Your task to perform on an android device: clear history in the chrome app Image 0: 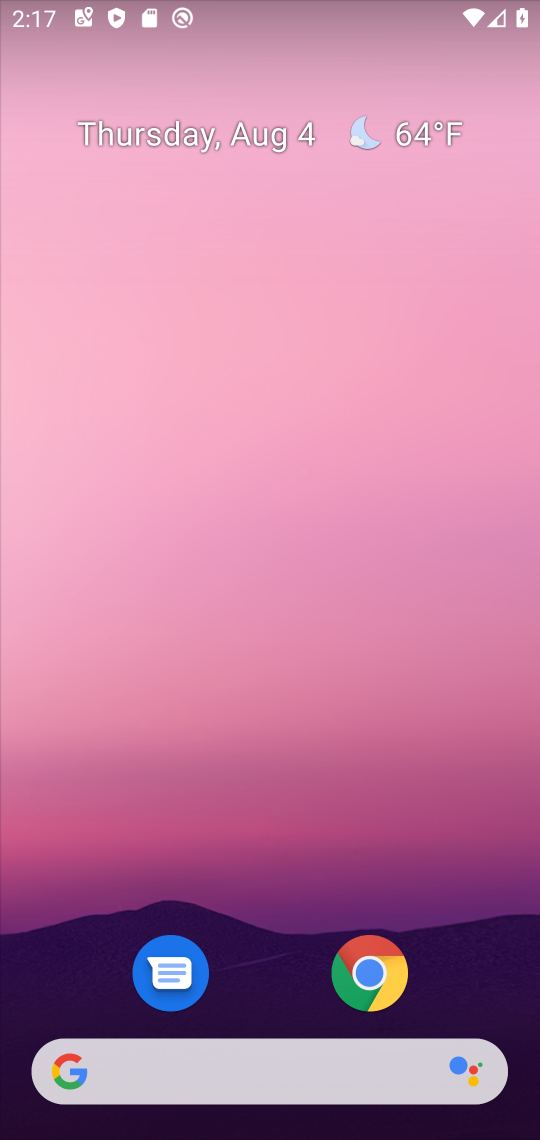
Step 0: drag from (335, 1040) to (207, 146)
Your task to perform on an android device: clear history in the chrome app Image 1: 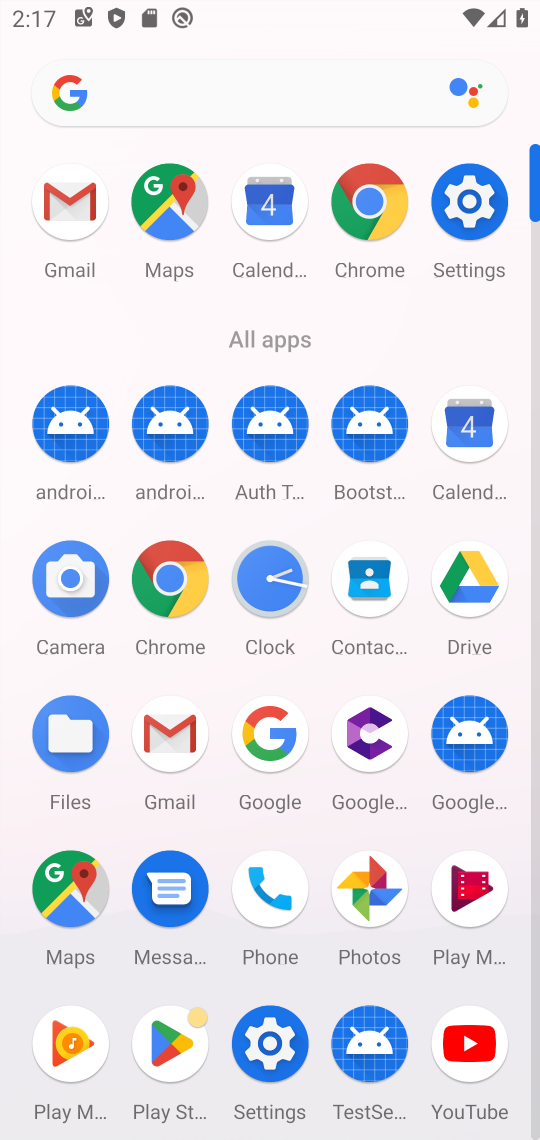
Step 1: click (158, 593)
Your task to perform on an android device: clear history in the chrome app Image 2: 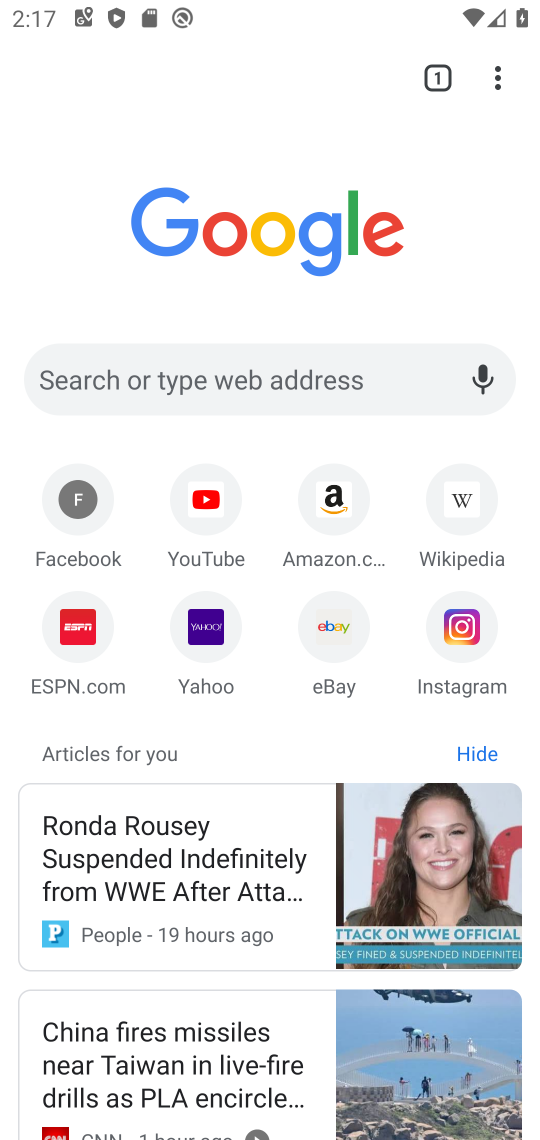
Step 2: click (495, 90)
Your task to perform on an android device: clear history in the chrome app Image 3: 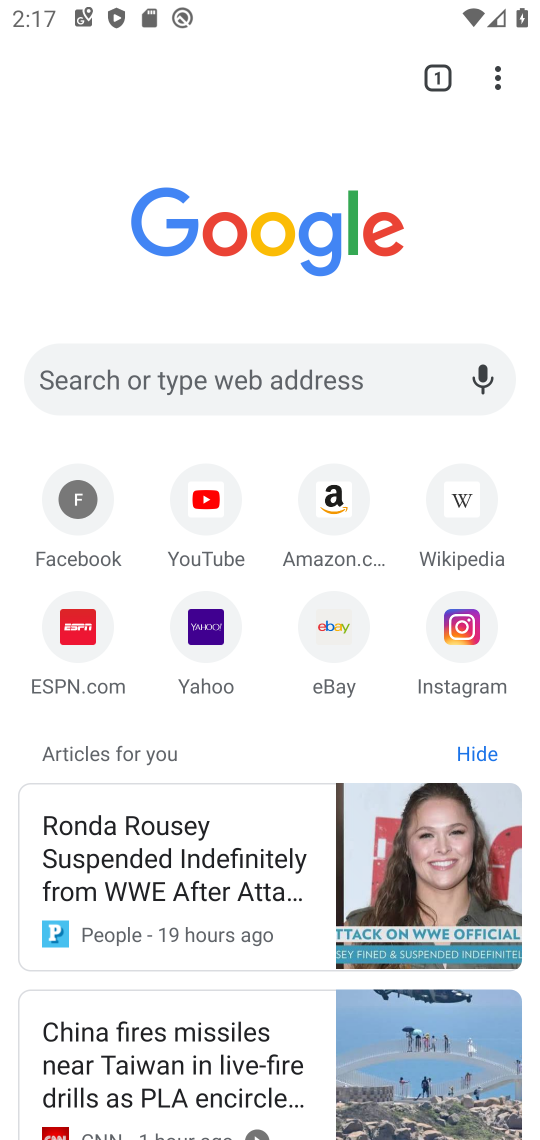
Step 3: click (498, 82)
Your task to perform on an android device: clear history in the chrome app Image 4: 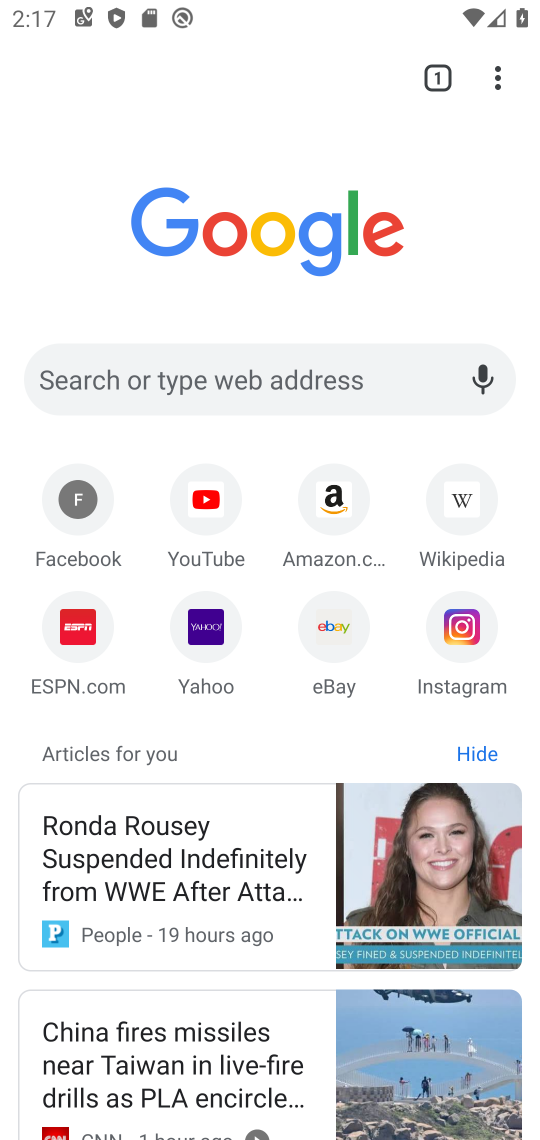
Step 4: drag from (496, 86) to (207, 433)
Your task to perform on an android device: clear history in the chrome app Image 5: 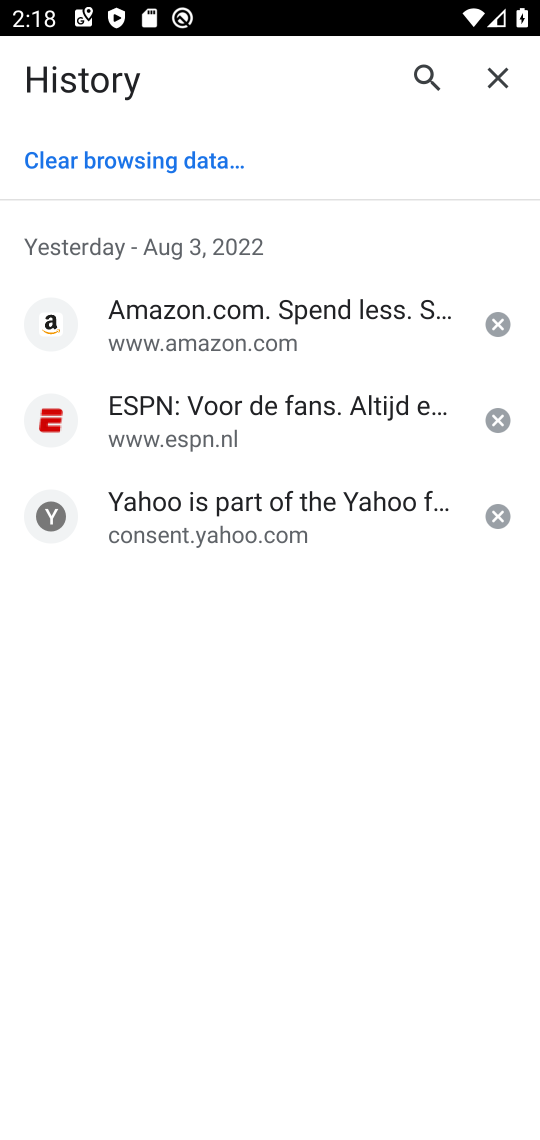
Step 5: click (123, 166)
Your task to perform on an android device: clear history in the chrome app Image 6: 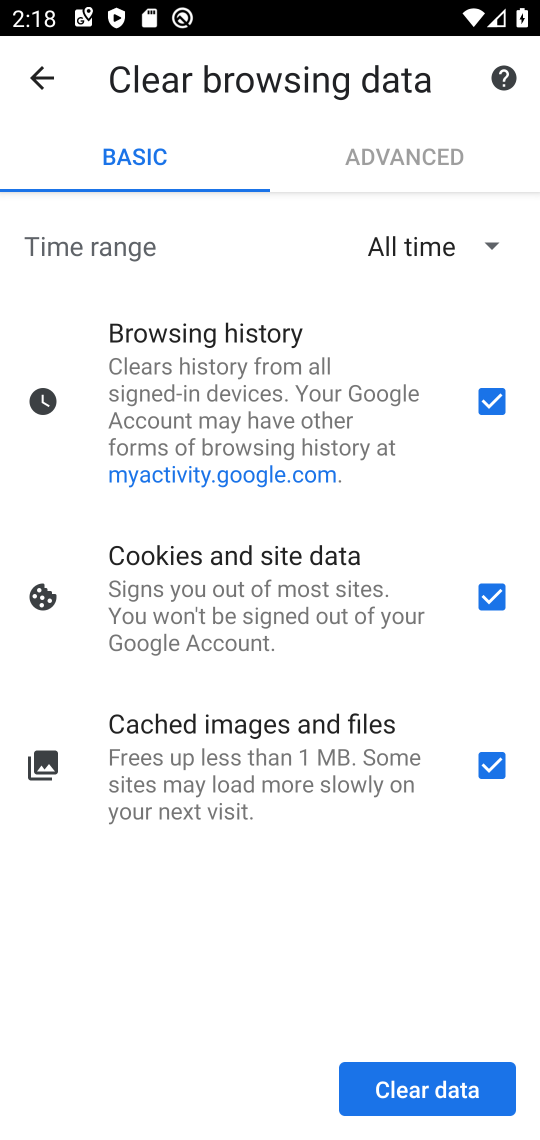
Step 6: click (434, 1071)
Your task to perform on an android device: clear history in the chrome app Image 7: 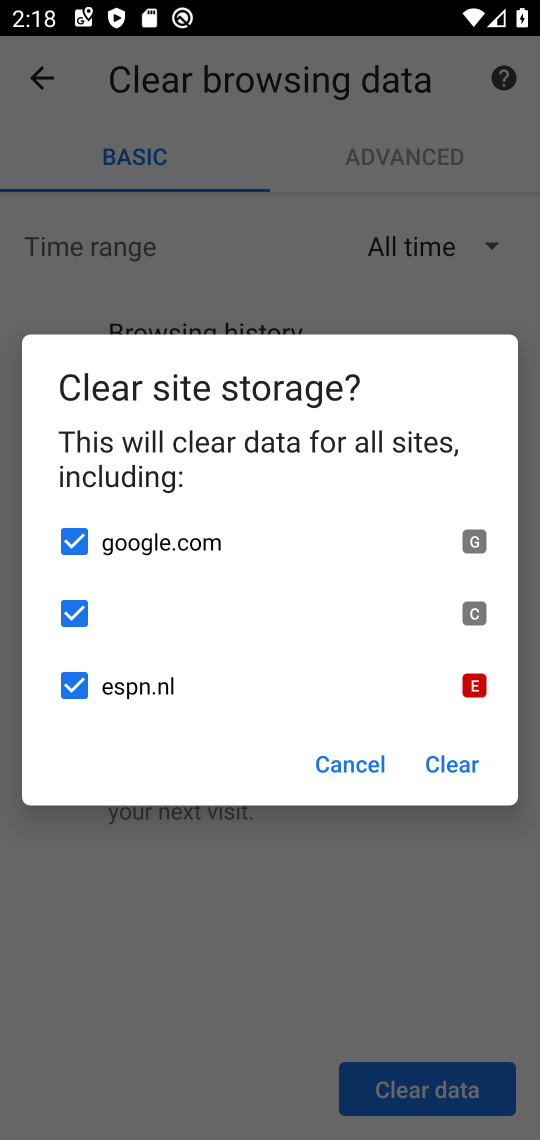
Step 7: click (457, 755)
Your task to perform on an android device: clear history in the chrome app Image 8: 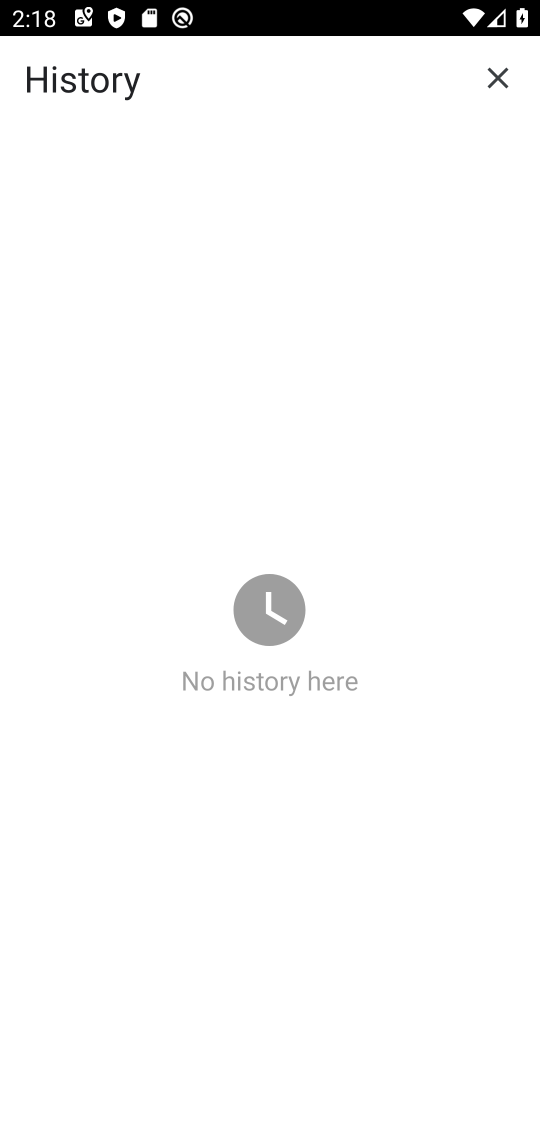
Step 8: task complete